Your task to perform on an android device: Search for razer huntsman on costco.com, select the first entry, add it to the cart, then select checkout. Image 0: 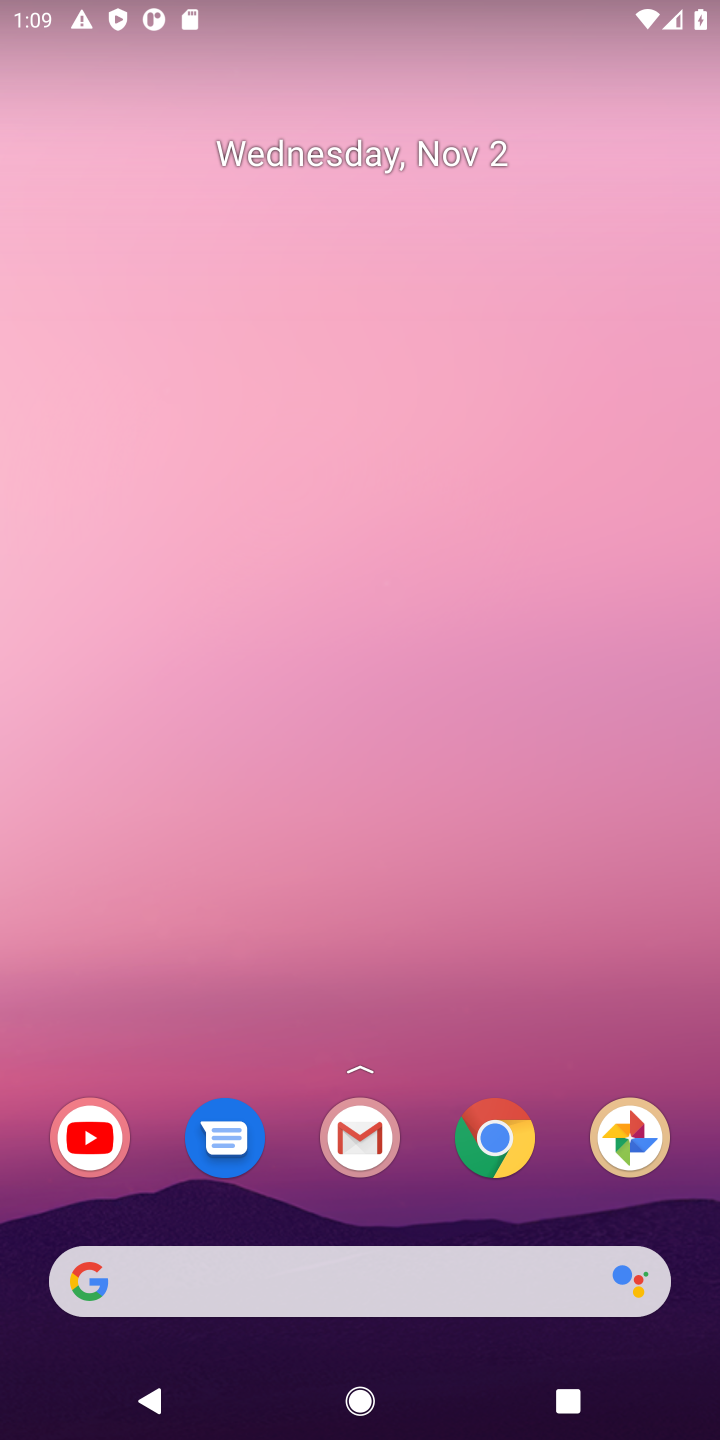
Step 0: press home button
Your task to perform on an android device: Search for razer huntsman on costco.com, select the first entry, add it to the cart, then select checkout. Image 1: 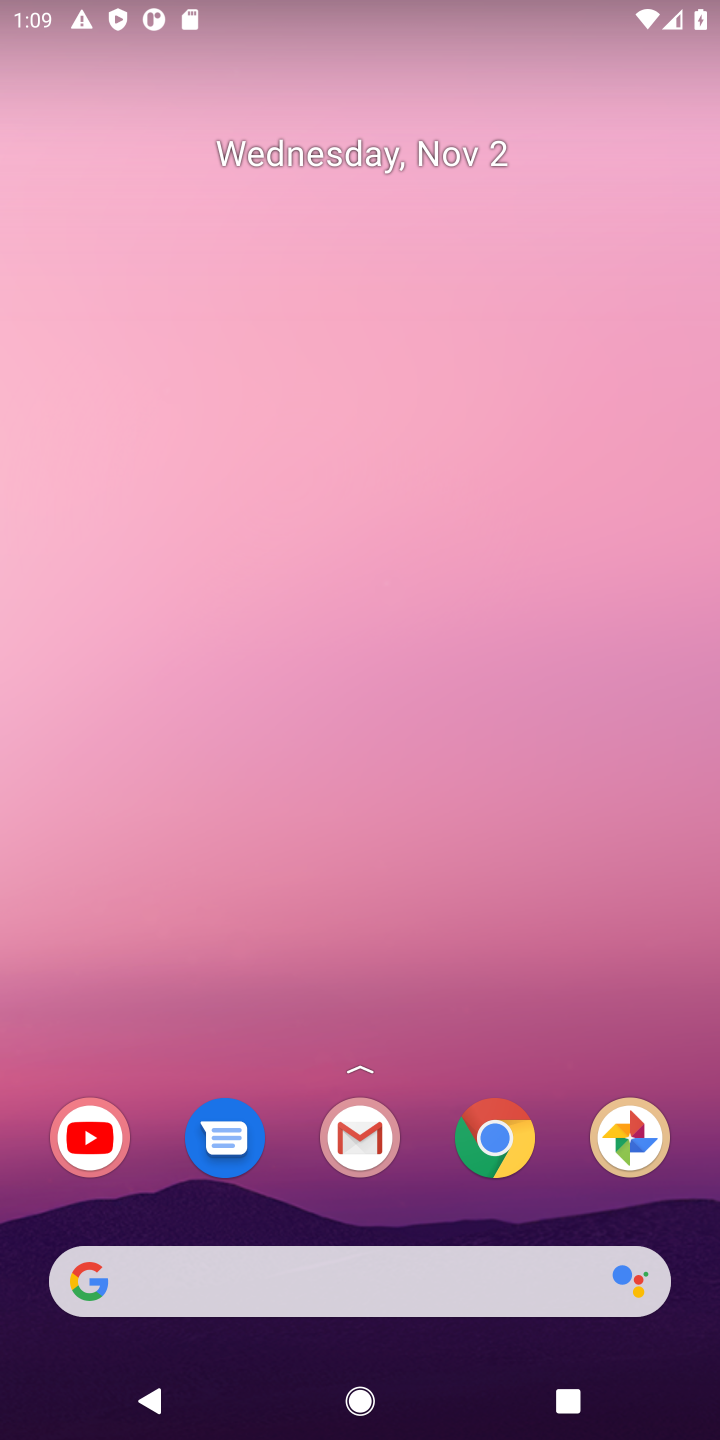
Step 1: click (154, 1279)
Your task to perform on an android device: Search for razer huntsman on costco.com, select the first entry, add it to the cart, then select checkout. Image 2: 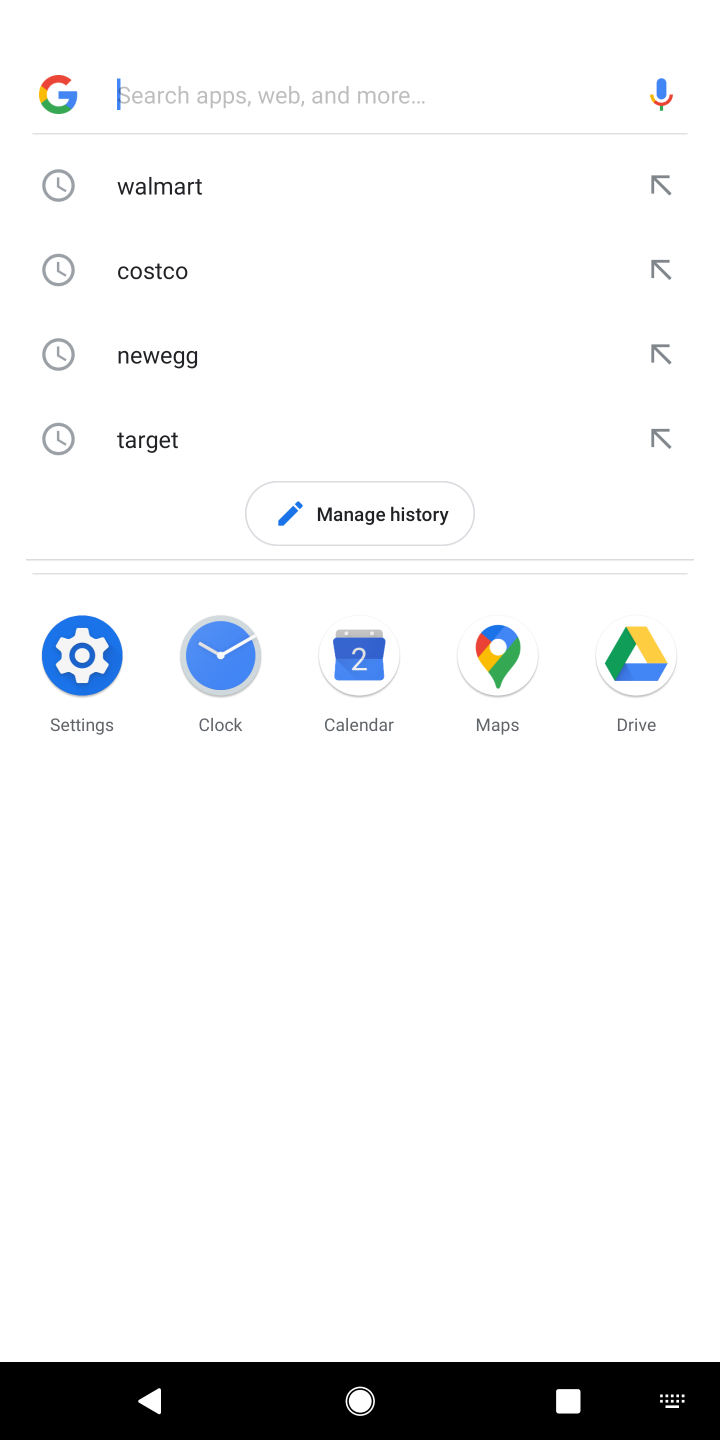
Step 2: click (197, 278)
Your task to perform on an android device: Search for razer huntsman on costco.com, select the first entry, add it to the cart, then select checkout. Image 3: 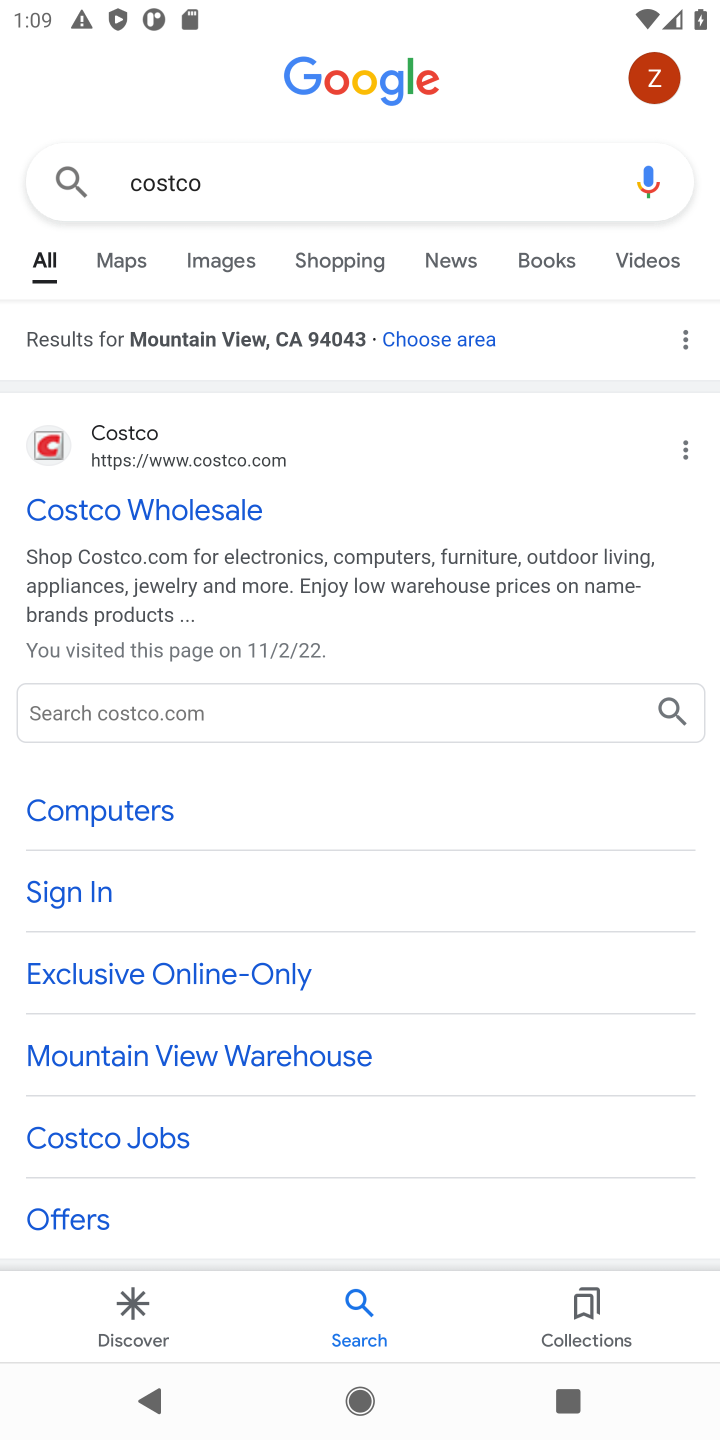
Step 3: click (198, 514)
Your task to perform on an android device: Search for razer huntsman on costco.com, select the first entry, add it to the cart, then select checkout. Image 4: 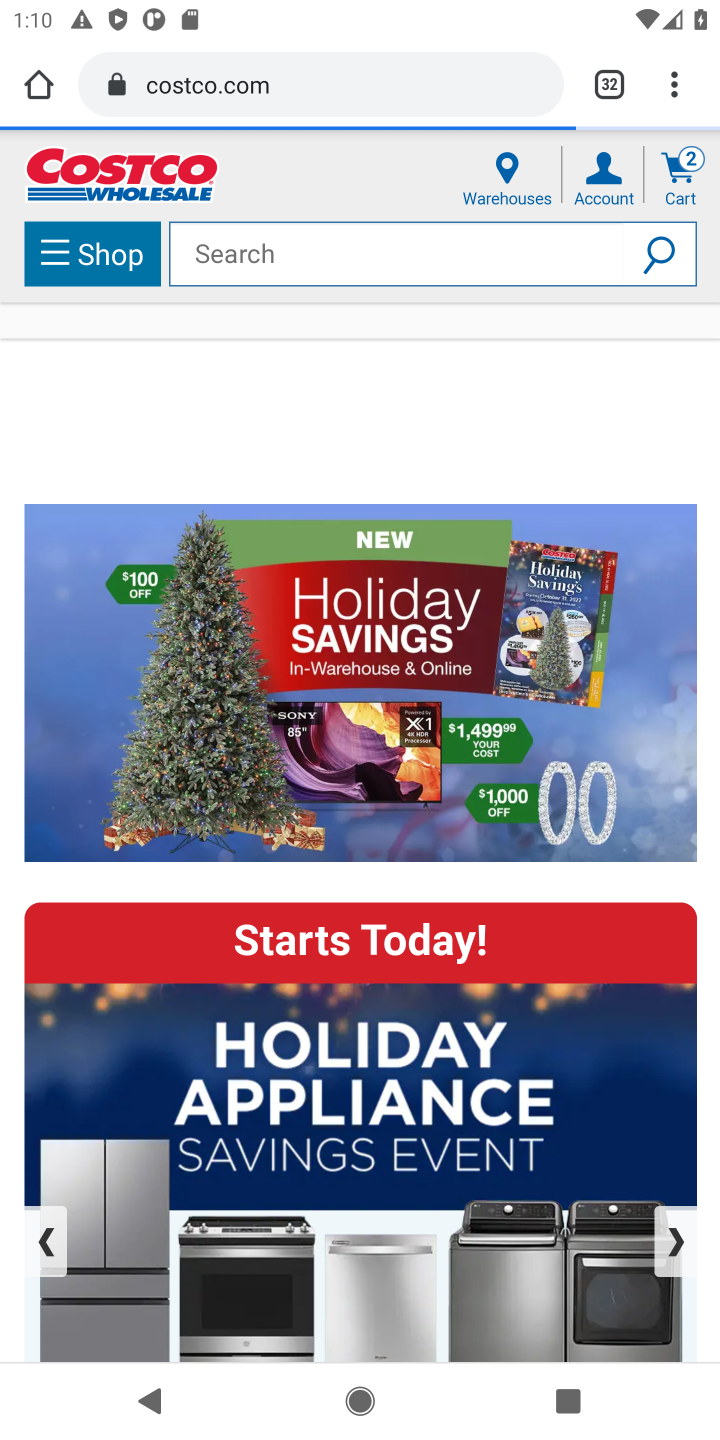
Step 4: click (311, 245)
Your task to perform on an android device: Search for razer huntsman on costco.com, select the first entry, add it to the cart, then select checkout. Image 5: 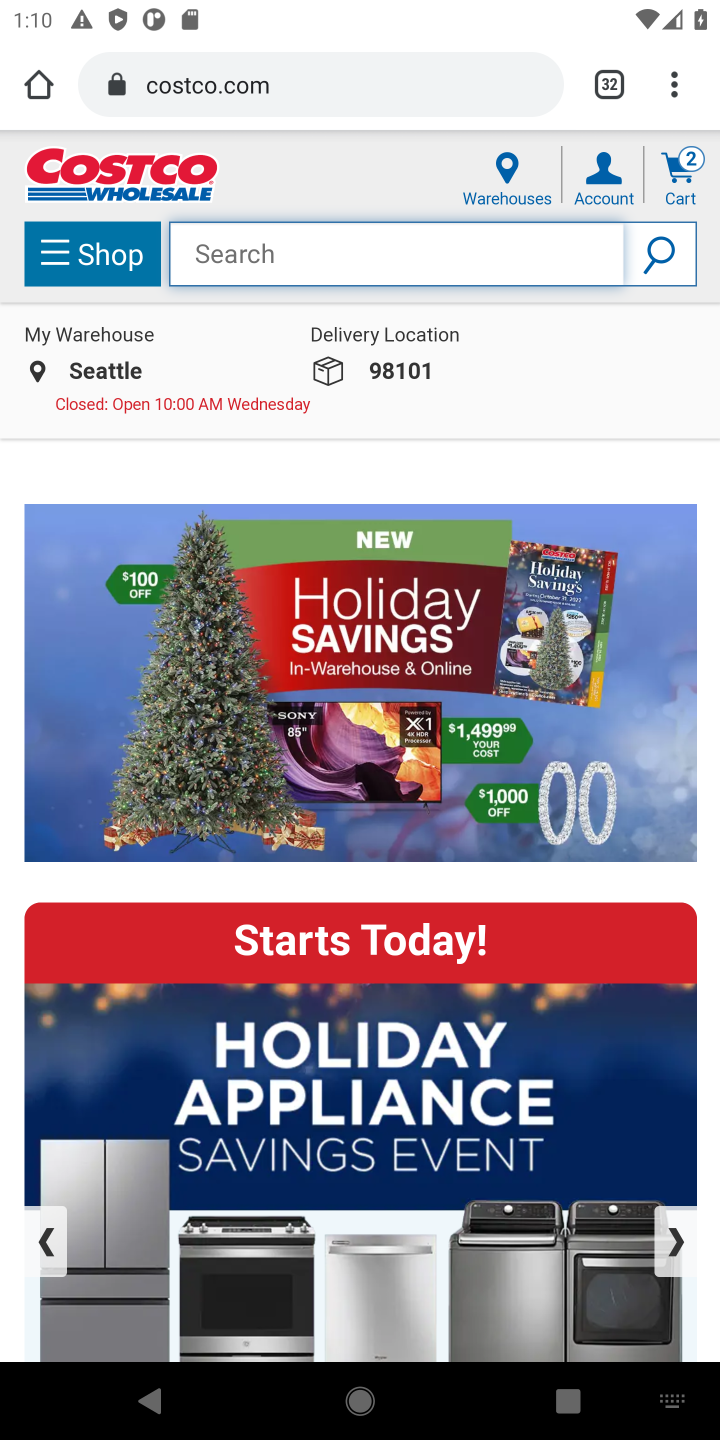
Step 5: type " razer huntsman "
Your task to perform on an android device: Search for razer huntsman on costco.com, select the first entry, add it to the cart, then select checkout. Image 6: 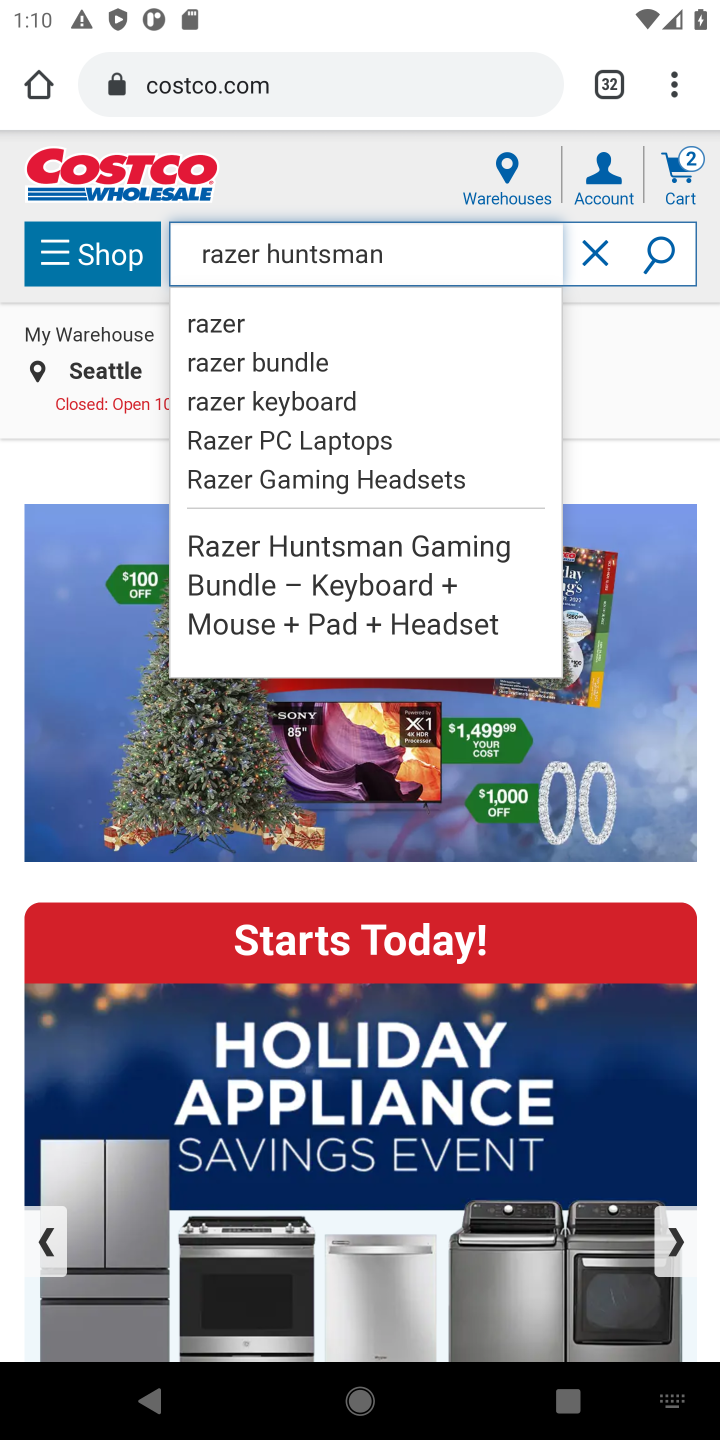
Step 6: click (657, 249)
Your task to perform on an android device: Search for razer huntsman on costco.com, select the first entry, add it to the cart, then select checkout. Image 7: 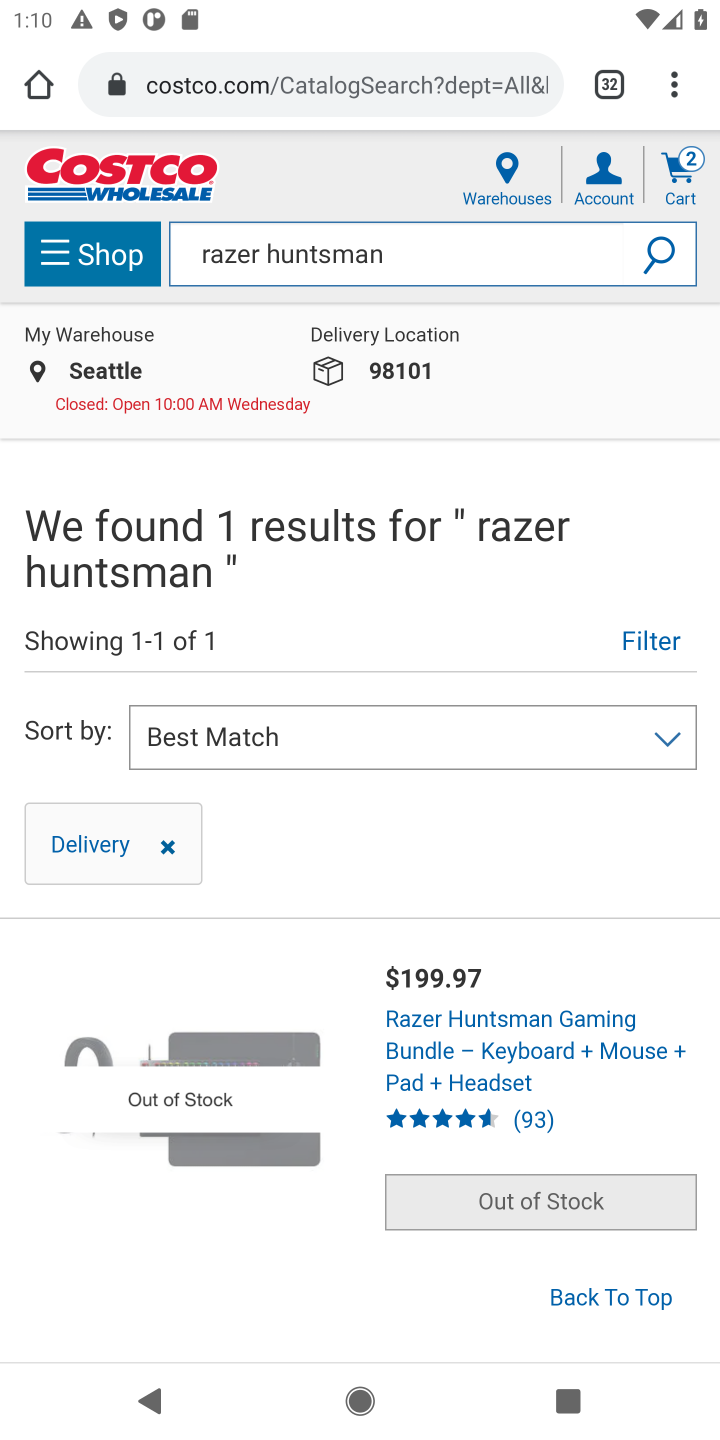
Step 7: task complete